Your task to perform on an android device: read, delete, or share a saved page in the chrome app Image 0: 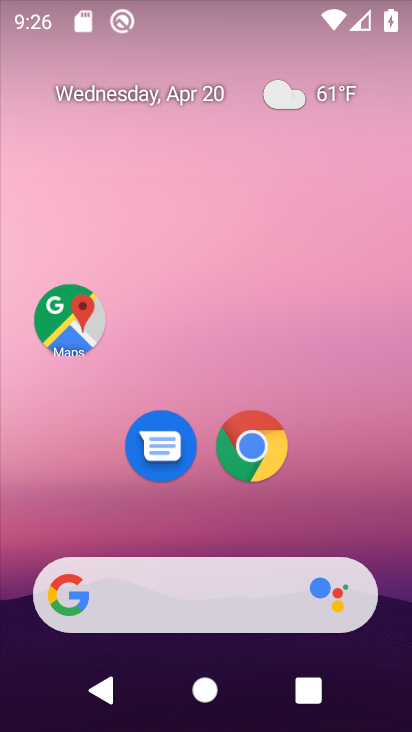
Step 0: click (309, 190)
Your task to perform on an android device: read, delete, or share a saved page in the chrome app Image 1: 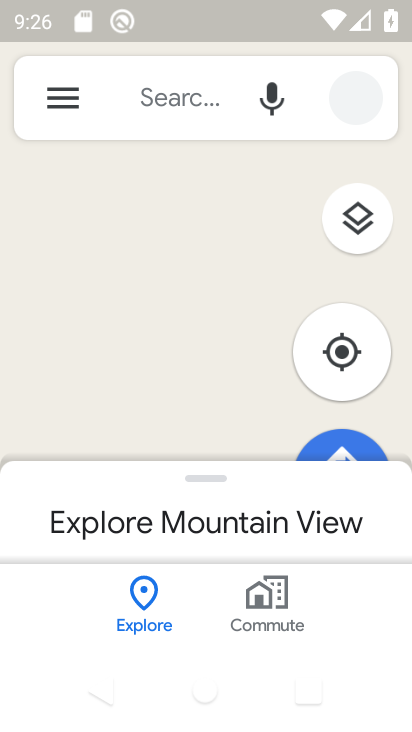
Step 1: press home button
Your task to perform on an android device: read, delete, or share a saved page in the chrome app Image 2: 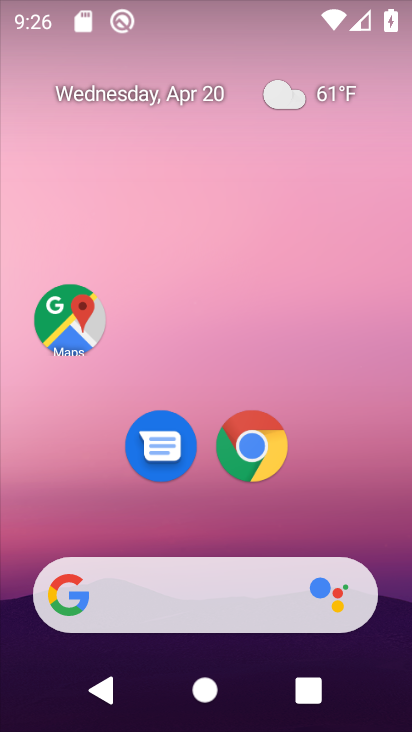
Step 2: drag from (366, 479) to (349, 143)
Your task to perform on an android device: read, delete, or share a saved page in the chrome app Image 3: 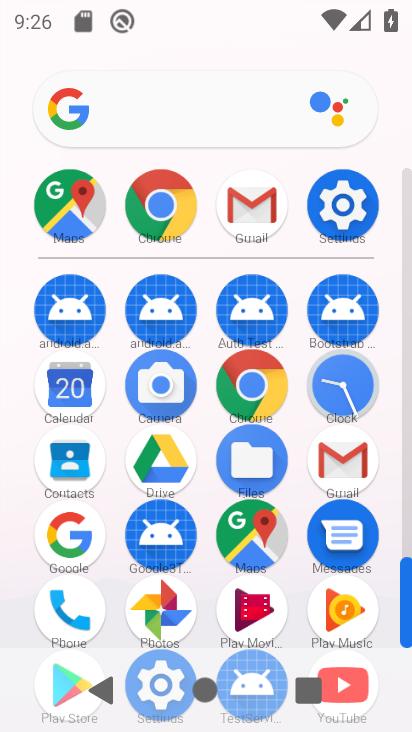
Step 3: click (261, 389)
Your task to perform on an android device: read, delete, or share a saved page in the chrome app Image 4: 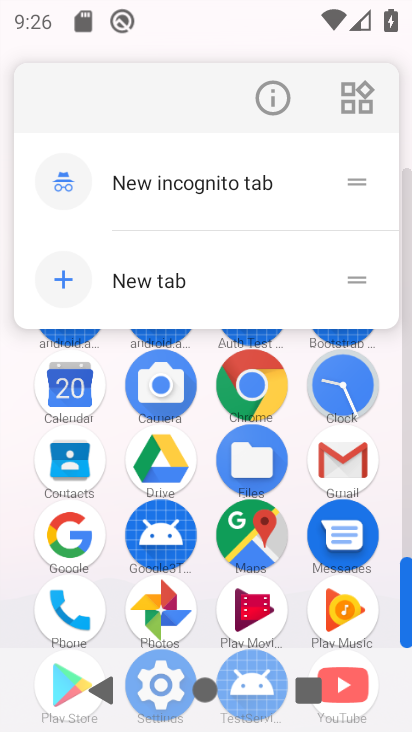
Step 4: click (259, 386)
Your task to perform on an android device: read, delete, or share a saved page in the chrome app Image 5: 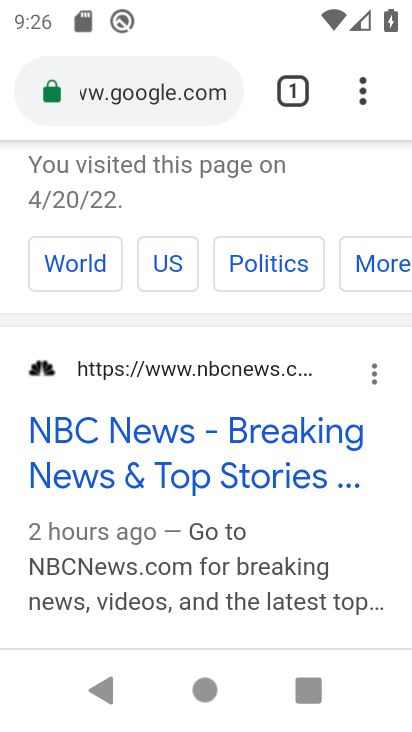
Step 5: drag from (369, 101) to (88, 450)
Your task to perform on an android device: read, delete, or share a saved page in the chrome app Image 6: 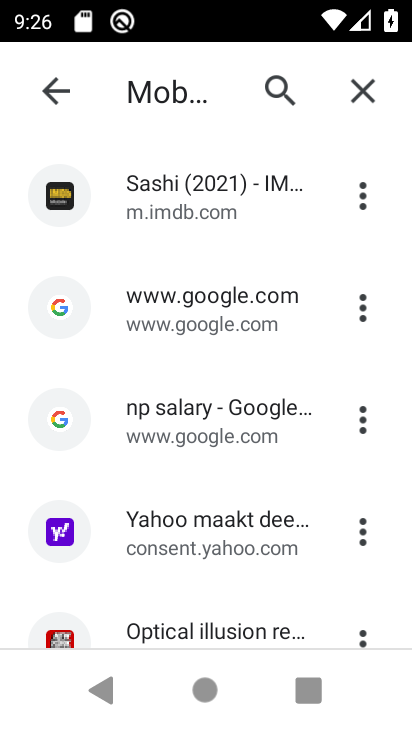
Step 6: click (361, 190)
Your task to perform on an android device: read, delete, or share a saved page in the chrome app Image 7: 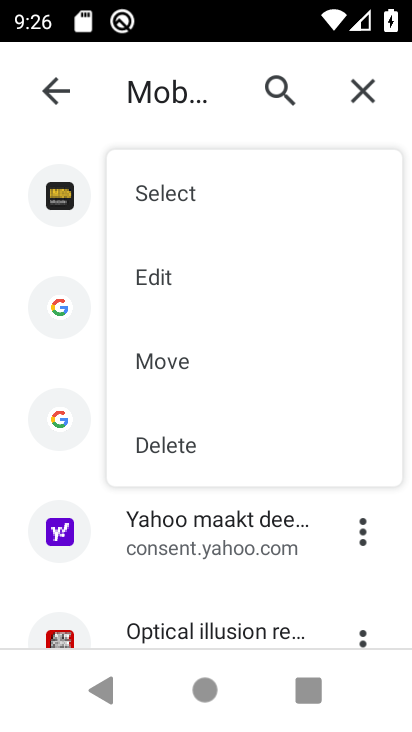
Step 7: click (170, 447)
Your task to perform on an android device: read, delete, or share a saved page in the chrome app Image 8: 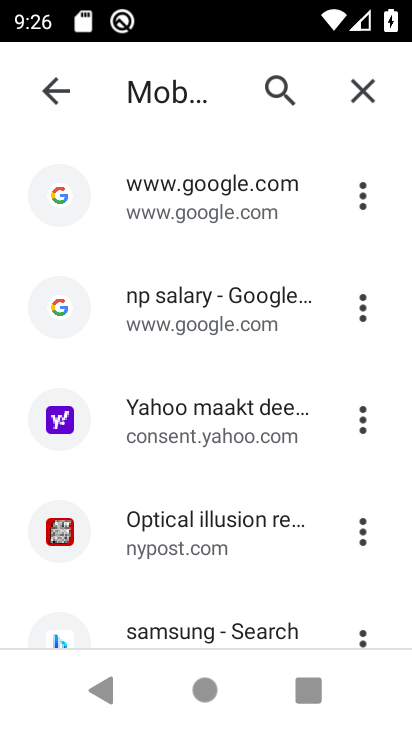
Step 8: task complete